Your task to perform on an android device: snooze an email in the gmail app Image 0: 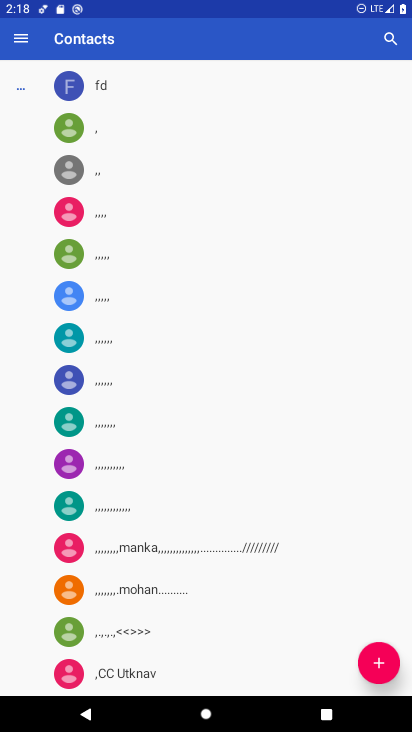
Step 0: press home button
Your task to perform on an android device: snooze an email in the gmail app Image 1: 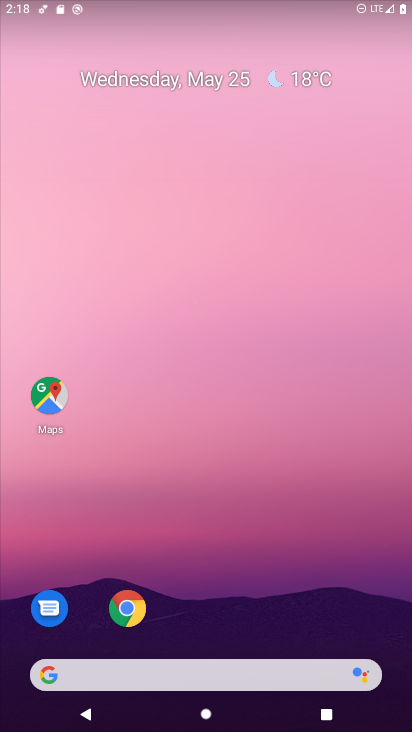
Step 1: drag from (380, 643) to (287, 72)
Your task to perform on an android device: snooze an email in the gmail app Image 2: 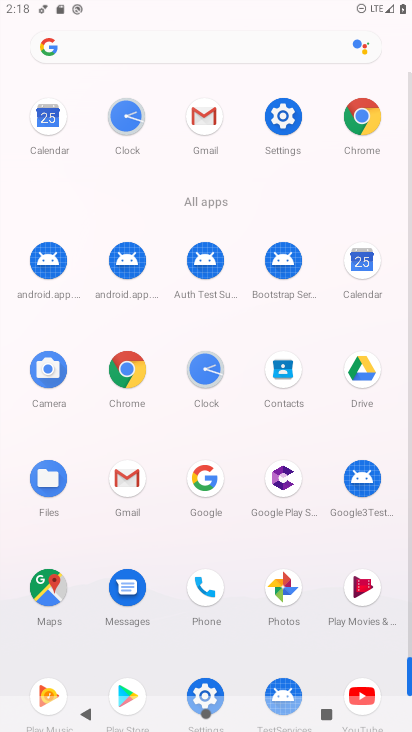
Step 2: click (410, 639)
Your task to perform on an android device: snooze an email in the gmail app Image 3: 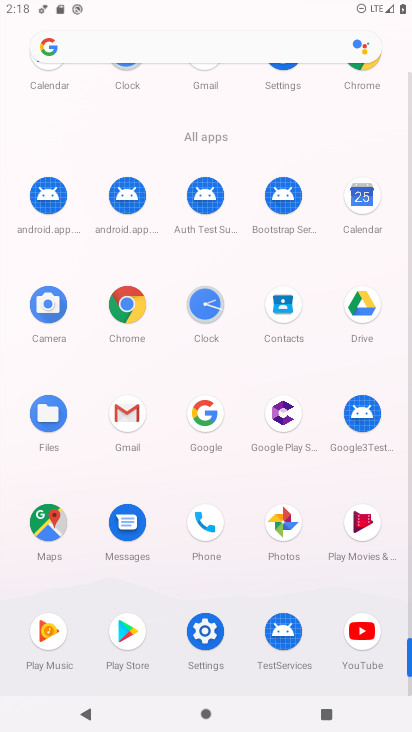
Step 3: click (128, 412)
Your task to perform on an android device: snooze an email in the gmail app Image 4: 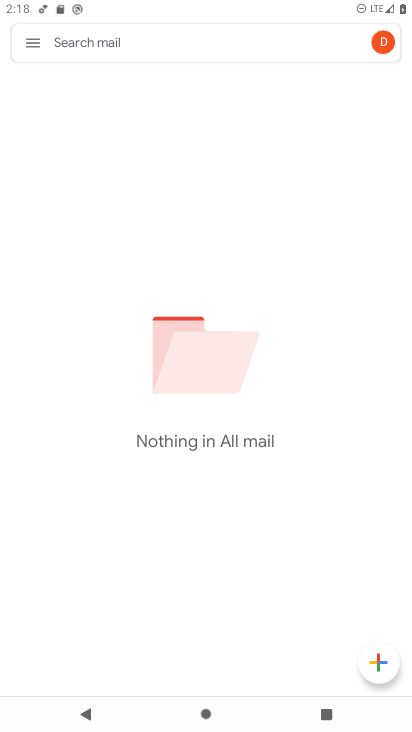
Step 4: click (32, 44)
Your task to perform on an android device: snooze an email in the gmail app Image 5: 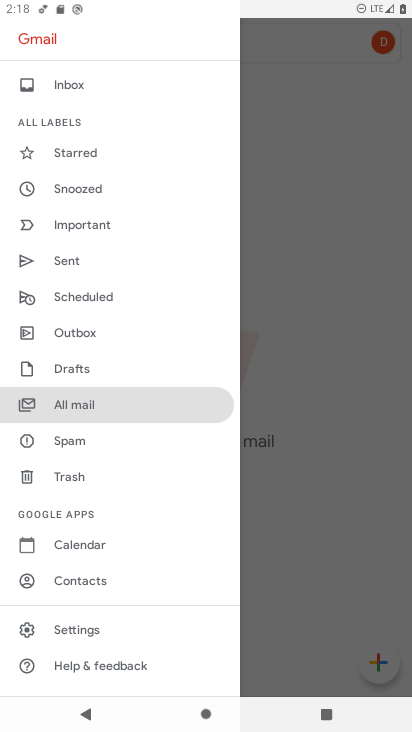
Step 5: click (76, 400)
Your task to perform on an android device: snooze an email in the gmail app Image 6: 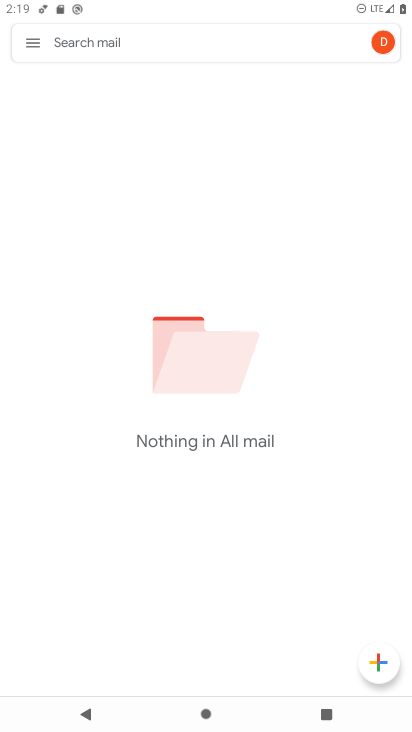
Step 6: task complete